Your task to perform on an android device: What's on my calendar tomorrow? Image 0: 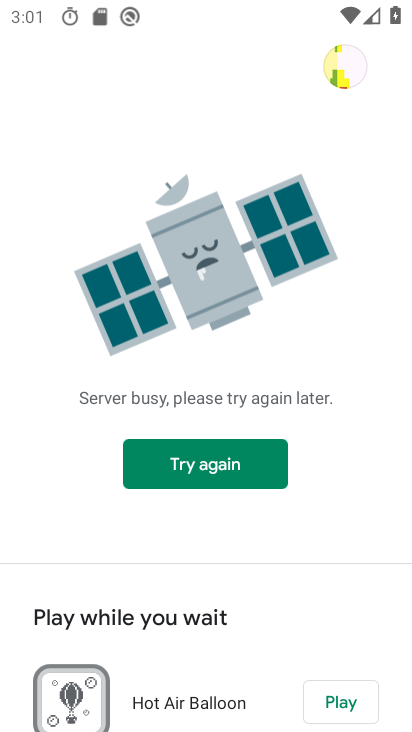
Step 0: press home button
Your task to perform on an android device: What's on my calendar tomorrow? Image 1: 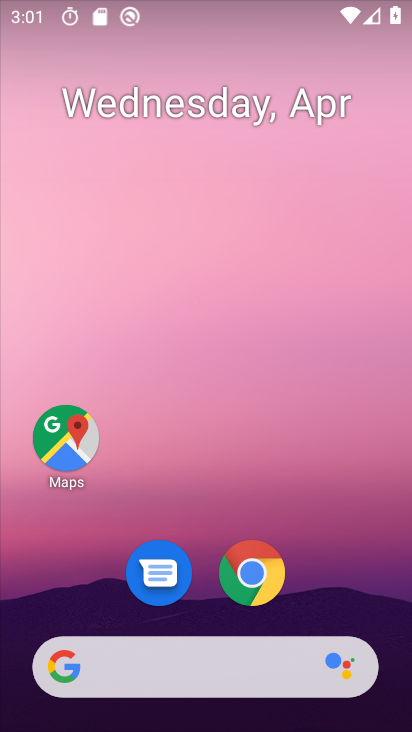
Step 1: drag from (216, 724) to (219, 60)
Your task to perform on an android device: What's on my calendar tomorrow? Image 2: 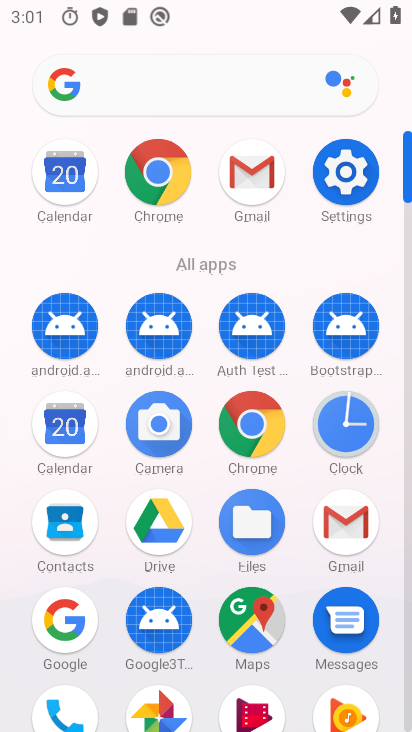
Step 2: click (67, 428)
Your task to perform on an android device: What's on my calendar tomorrow? Image 3: 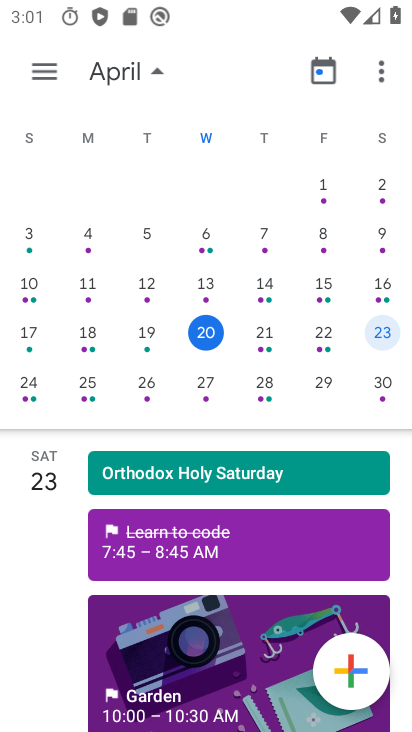
Step 3: click (210, 328)
Your task to perform on an android device: What's on my calendar tomorrow? Image 4: 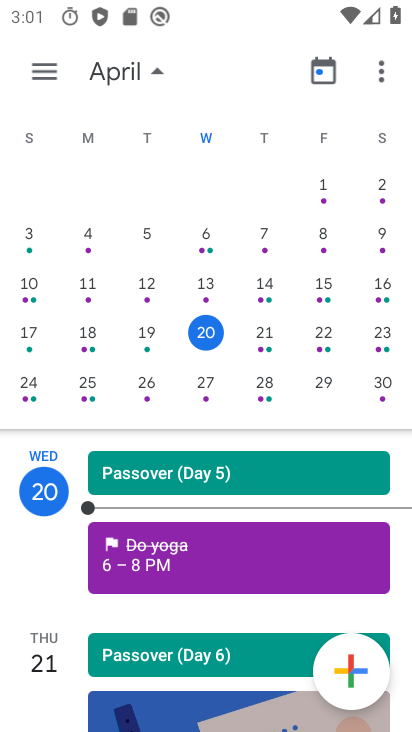
Step 4: task complete